Your task to perform on an android device: Open calendar and show me the second week of next month Image 0: 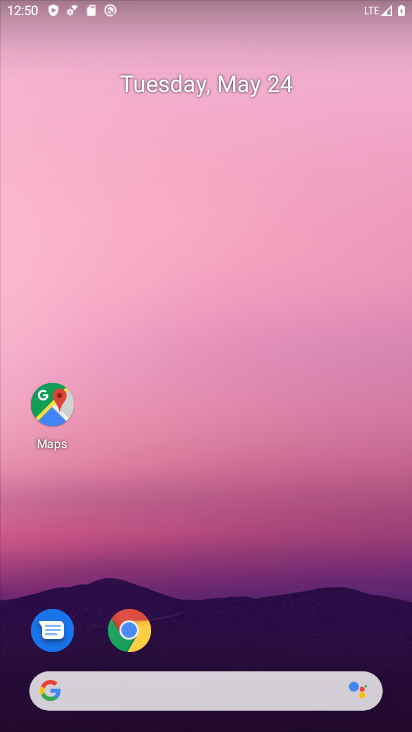
Step 0: drag from (304, 601) to (322, 123)
Your task to perform on an android device: Open calendar and show me the second week of next month Image 1: 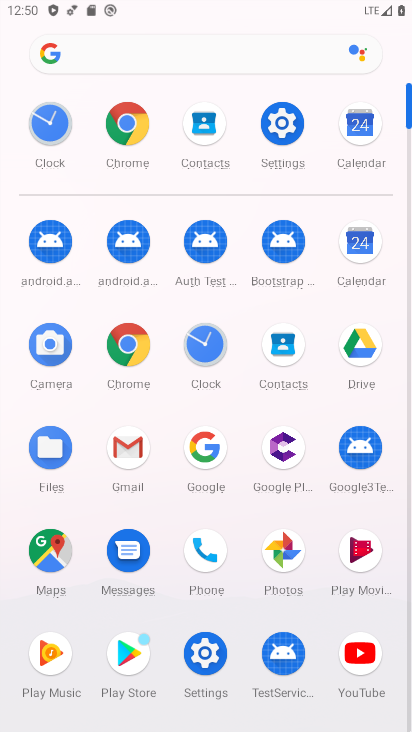
Step 1: click (355, 134)
Your task to perform on an android device: Open calendar and show me the second week of next month Image 2: 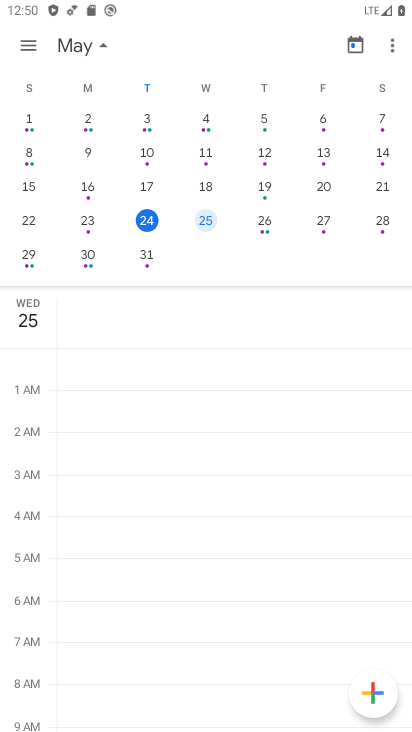
Step 2: click (25, 41)
Your task to perform on an android device: Open calendar and show me the second week of next month Image 3: 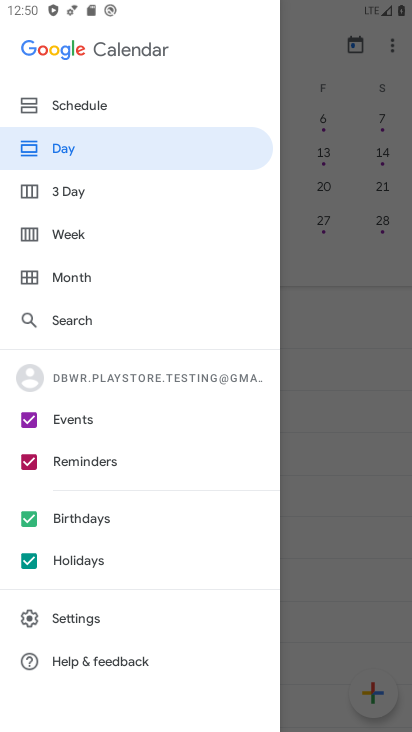
Step 3: click (94, 229)
Your task to perform on an android device: Open calendar and show me the second week of next month Image 4: 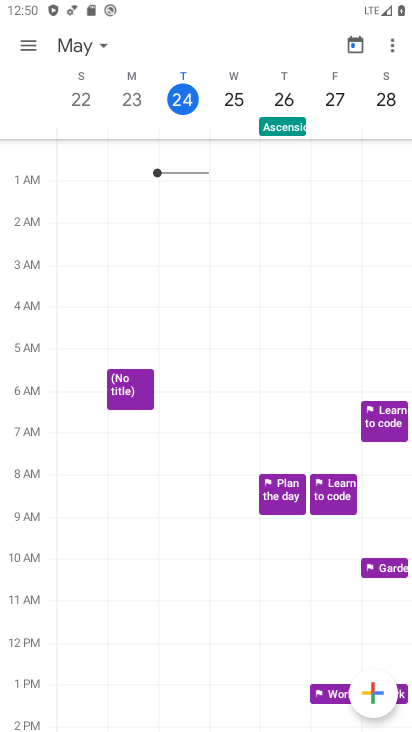
Step 4: click (96, 48)
Your task to perform on an android device: Open calendar and show me the second week of next month Image 5: 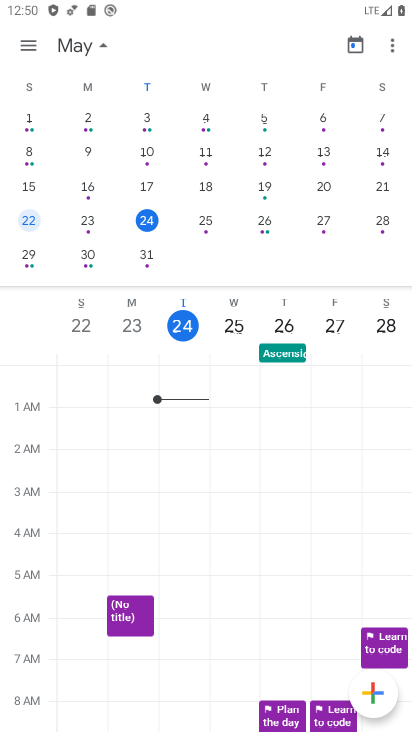
Step 5: drag from (325, 220) to (2, 166)
Your task to perform on an android device: Open calendar and show me the second week of next month Image 6: 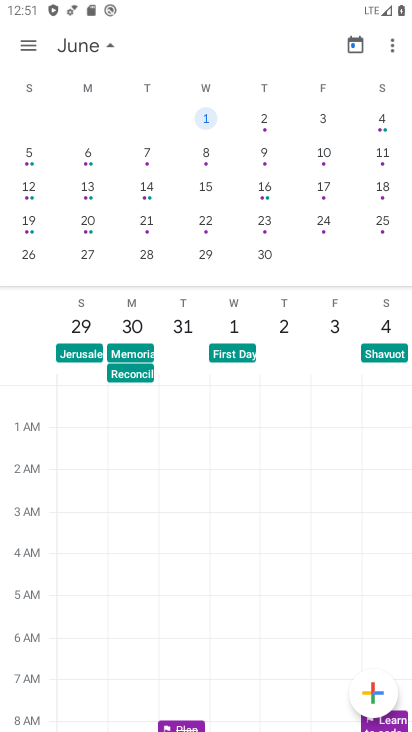
Step 6: click (86, 186)
Your task to perform on an android device: Open calendar and show me the second week of next month Image 7: 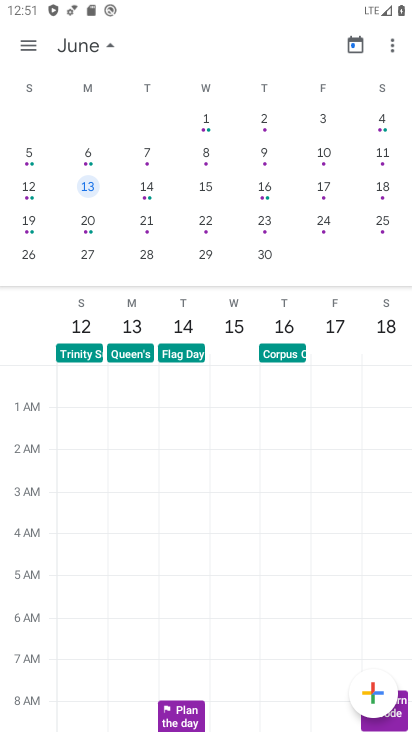
Step 7: task complete